Your task to perform on an android device: What's on my calendar today? Image 0: 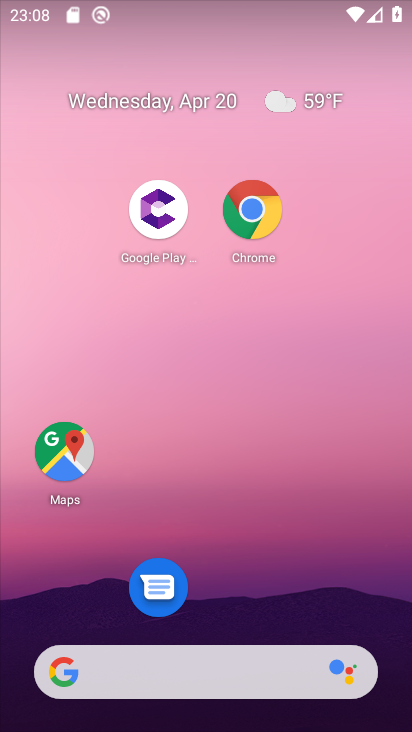
Step 0: drag from (213, 571) to (193, 56)
Your task to perform on an android device: What's on my calendar today? Image 1: 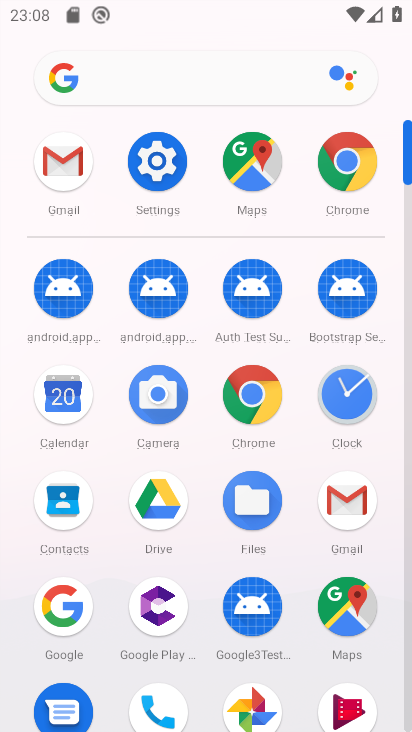
Step 1: click (58, 391)
Your task to perform on an android device: What's on my calendar today? Image 2: 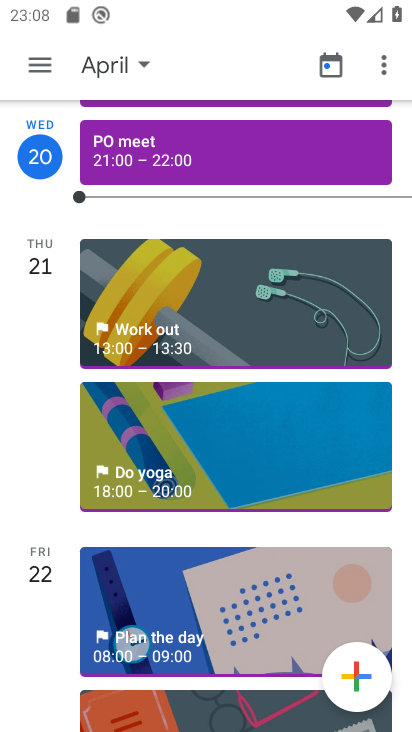
Step 2: click (38, 187)
Your task to perform on an android device: What's on my calendar today? Image 3: 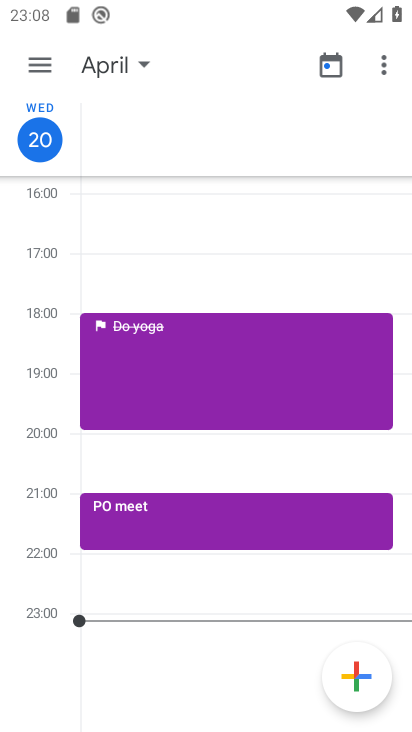
Step 3: task complete